Your task to perform on an android device: View the shopping cart on bestbuy.com. Add "usb-b" to the cart on bestbuy.com Image 0: 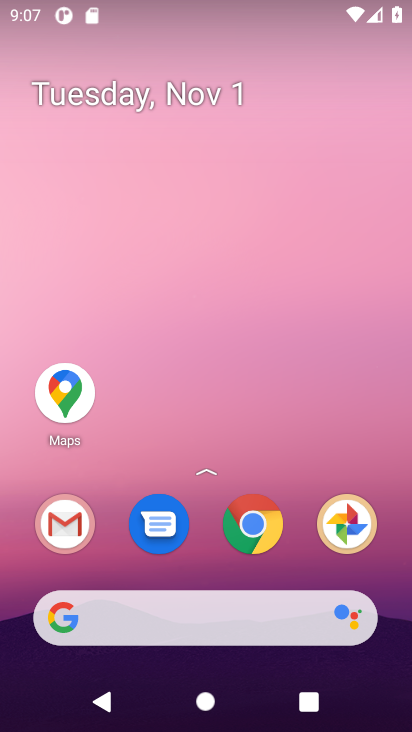
Step 0: press home button
Your task to perform on an android device: View the shopping cart on bestbuy.com. Add "usb-b" to the cart on bestbuy.com Image 1: 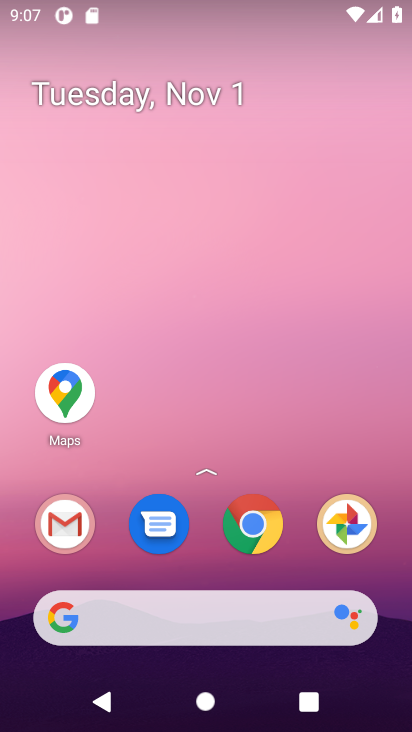
Step 1: click (102, 609)
Your task to perform on an android device: View the shopping cart on bestbuy.com. Add "usb-b" to the cart on bestbuy.com Image 2: 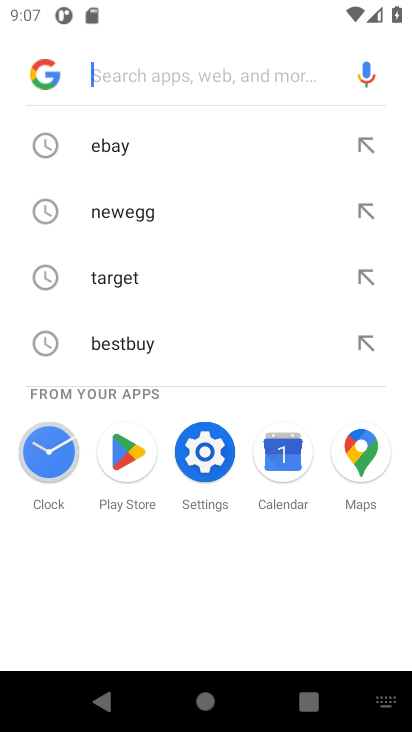
Step 2: type "bestbuy.com"
Your task to perform on an android device: View the shopping cart on bestbuy.com. Add "usb-b" to the cart on bestbuy.com Image 3: 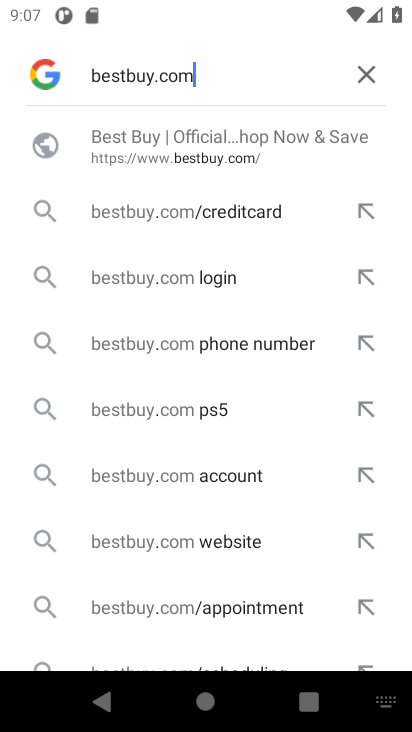
Step 3: press enter
Your task to perform on an android device: View the shopping cart on bestbuy.com. Add "usb-b" to the cart on bestbuy.com Image 4: 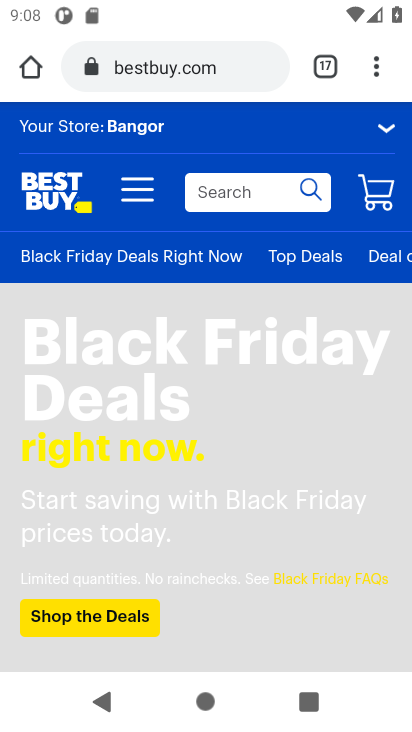
Step 4: click (376, 195)
Your task to perform on an android device: View the shopping cart on bestbuy.com. Add "usb-b" to the cart on bestbuy.com Image 5: 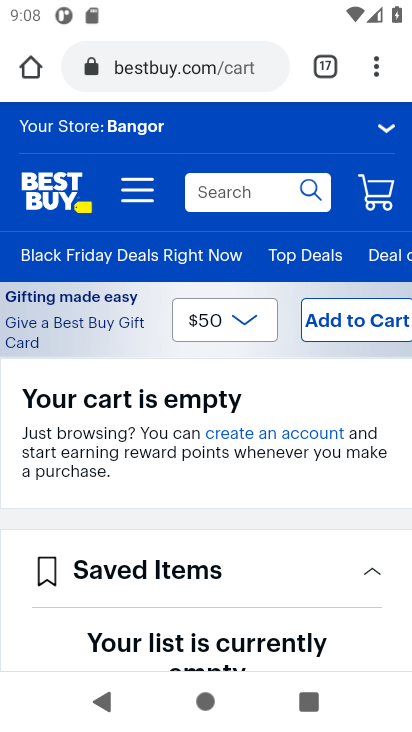
Step 5: click (196, 193)
Your task to perform on an android device: View the shopping cart on bestbuy.com. Add "usb-b" to the cart on bestbuy.com Image 6: 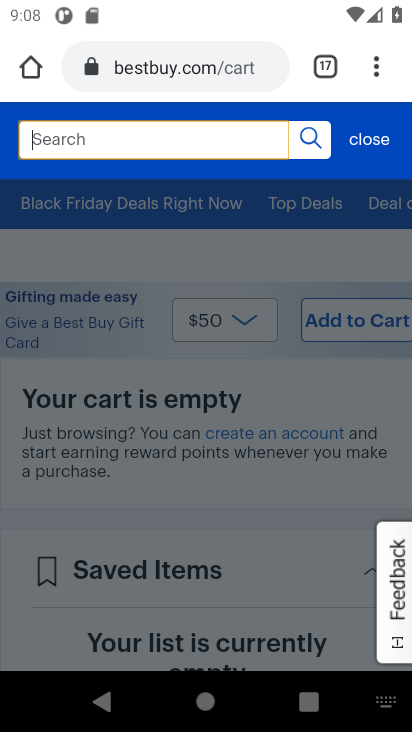
Step 6: type "usb-b"
Your task to perform on an android device: View the shopping cart on bestbuy.com. Add "usb-b" to the cart on bestbuy.com Image 7: 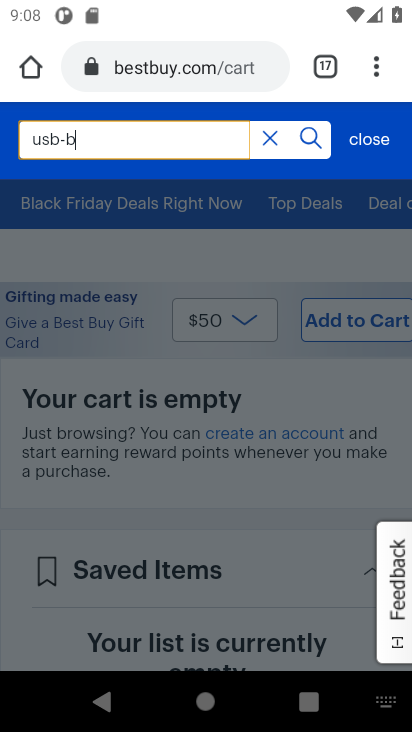
Step 7: press enter
Your task to perform on an android device: View the shopping cart on bestbuy.com. Add "usb-b" to the cart on bestbuy.com Image 8: 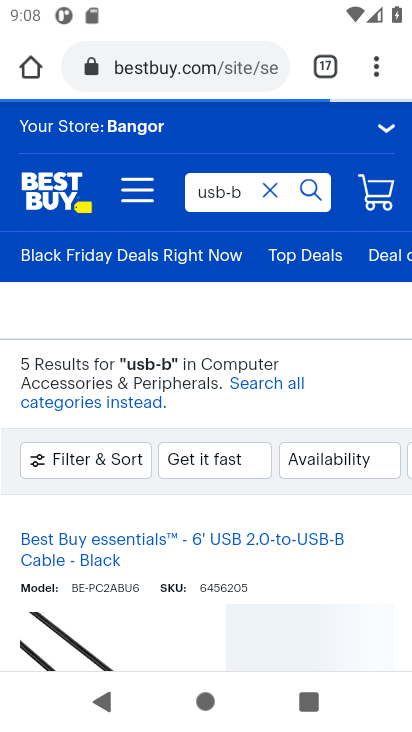
Step 8: drag from (281, 564) to (288, 335)
Your task to perform on an android device: View the shopping cart on bestbuy.com. Add "usb-b" to the cart on bestbuy.com Image 9: 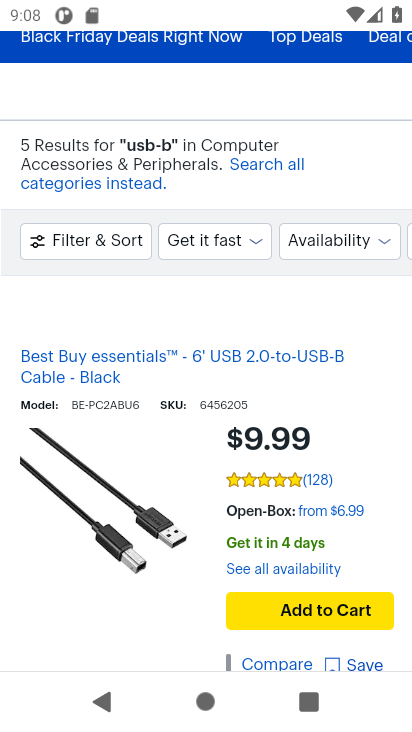
Step 9: drag from (175, 513) to (199, 388)
Your task to perform on an android device: View the shopping cart on bestbuy.com. Add "usb-b" to the cart on bestbuy.com Image 10: 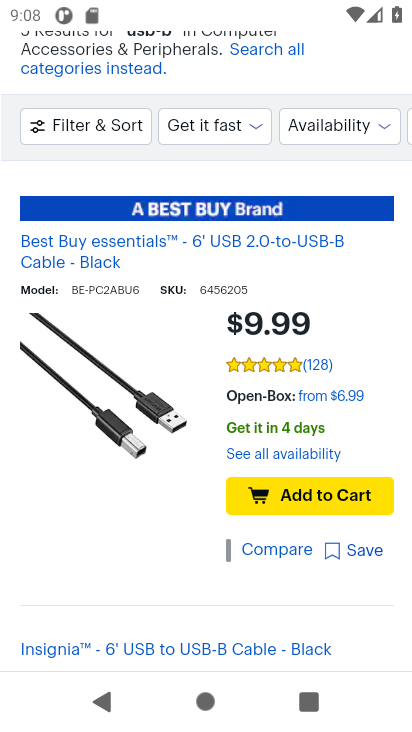
Step 10: click (330, 492)
Your task to perform on an android device: View the shopping cart on bestbuy.com. Add "usb-b" to the cart on bestbuy.com Image 11: 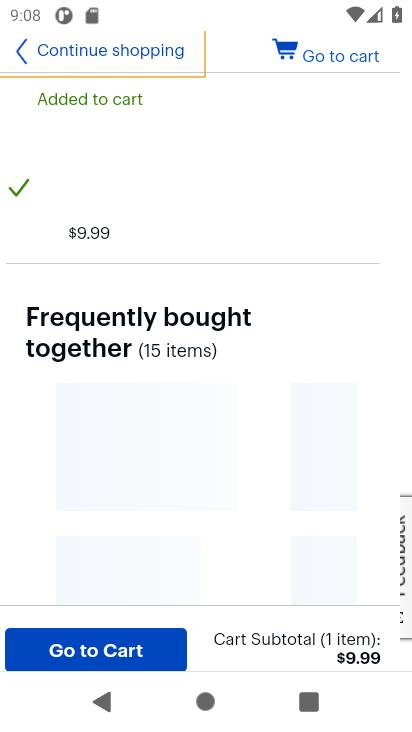
Step 11: task complete